Your task to perform on an android device: Search for sushi restaurants on Maps Image 0: 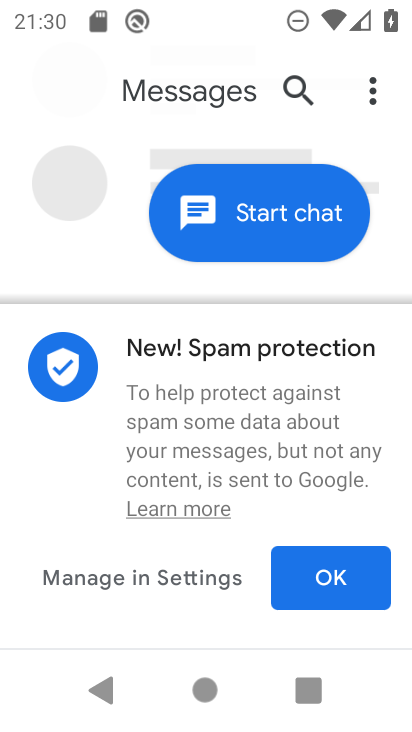
Step 0: press home button
Your task to perform on an android device: Search for sushi restaurants on Maps Image 1: 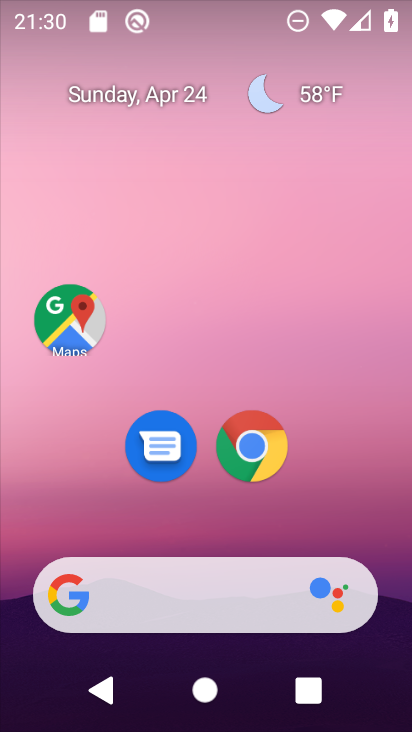
Step 1: drag from (182, 572) to (310, 147)
Your task to perform on an android device: Search for sushi restaurants on Maps Image 2: 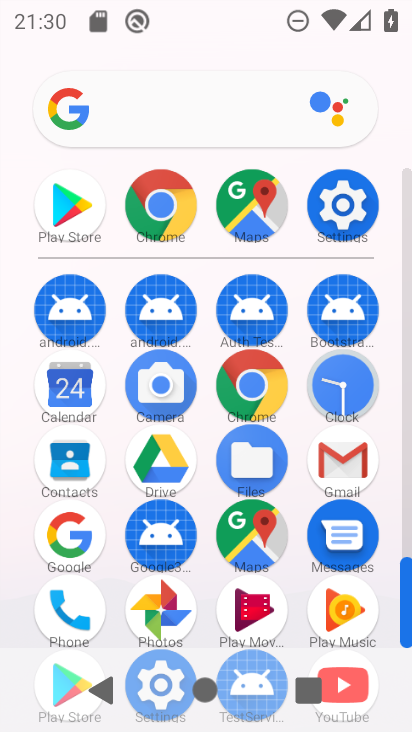
Step 2: click (232, 214)
Your task to perform on an android device: Search for sushi restaurants on Maps Image 3: 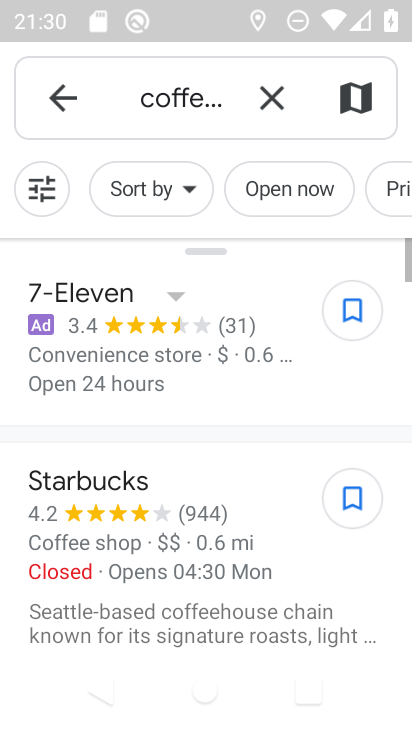
Step 3: click (269, 94)
Your task to perform on an android device: Search for sushi restaurants on Maps Image 4: 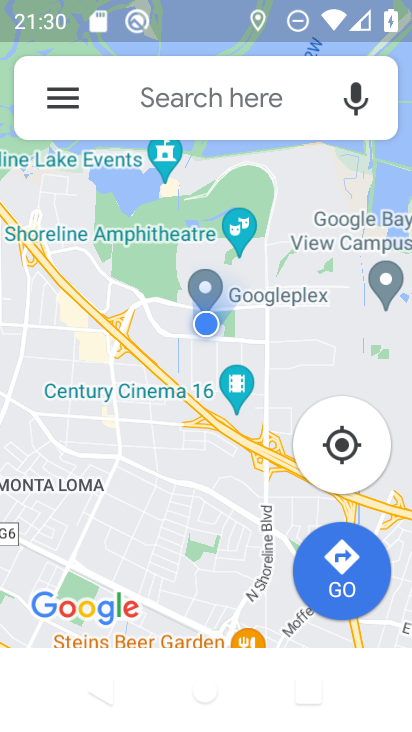
Step 4: click (203, 94)
Your task to perform on an android device: Search for sushi restaurants on Maps Image 5: 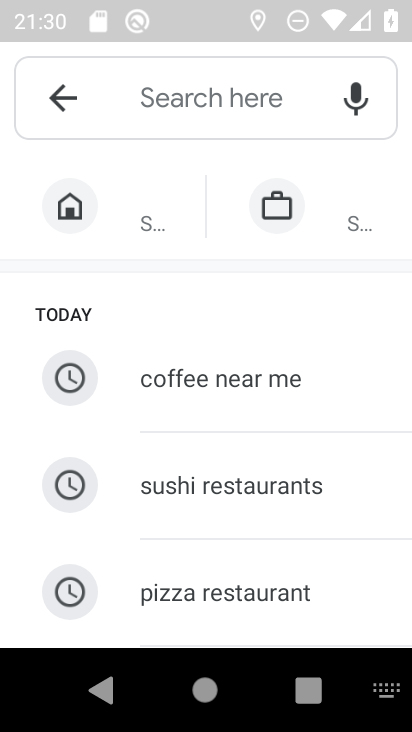
Step 5: click (253, 479)
Your task to perform on an android device: Search for sushi restaurants on Maps Image 6: 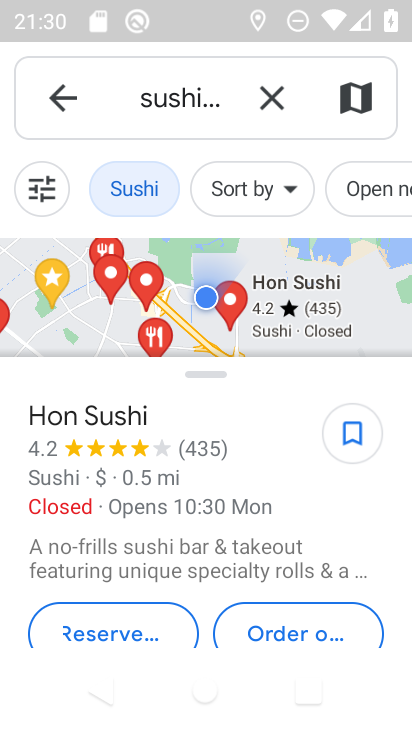
Step 6: task complete